Your task to perform on an android device: add a contact Image 0: 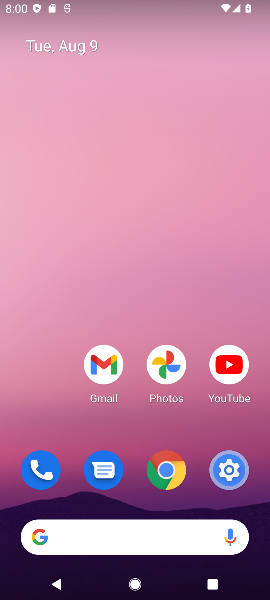
Step 0: drag from (100, 539) to (156, 144)
Your task to perform on an android device: add a contact Image 1: 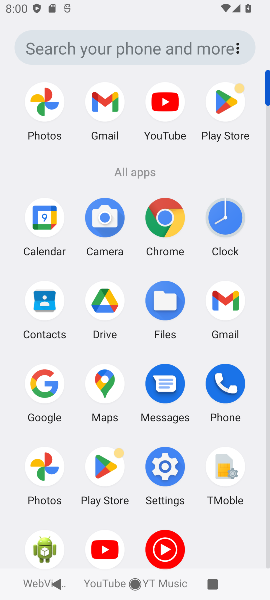
Step 1: click (46, 300)
Your task to perform on an android device: add a contact Image 2: 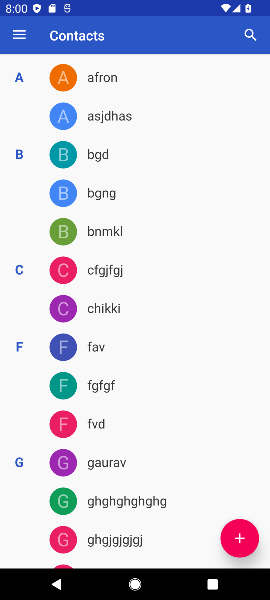
Step 2: click (242, 541)
Your task to perform on an android device: add a contact Image 3: 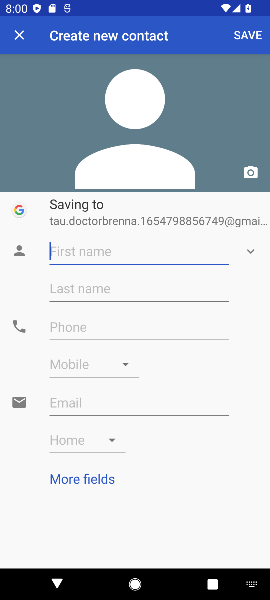
Step 3: type "Devendra"
Your task to perform on an android device: add a contact Image 4: 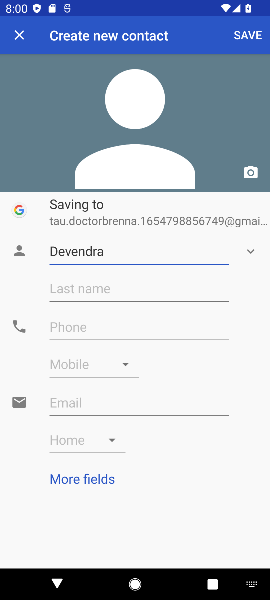
Step 4: click (113, 290)
Your task to perform on an android device: add a contact Image 5: 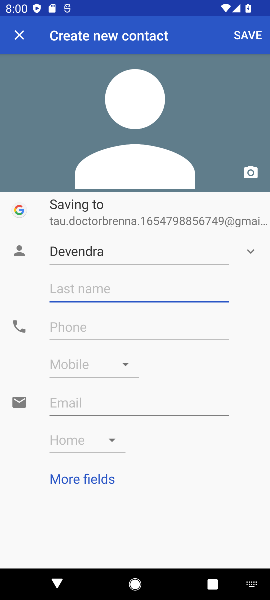
Step 5: type "Bhanopia"
Your task to perform on an android device: add a contact Image 6: 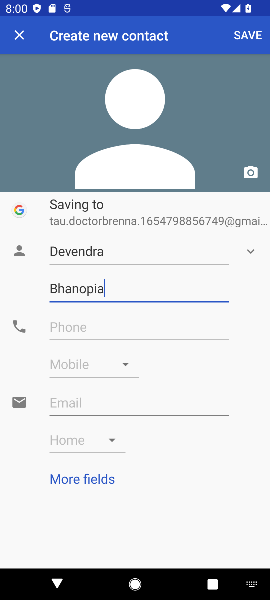
Step 6: click (122, 326)
Your task to perform on an android device: add a contact Image 7: 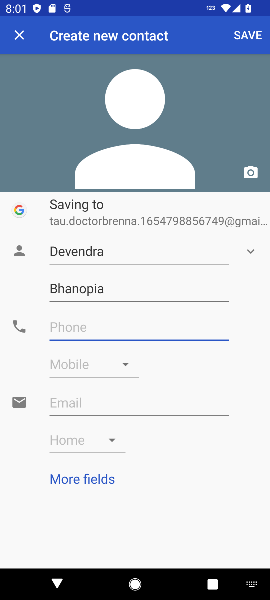
Step 7: type "0987654321"
Your task to perform on an android device: add a contact Image 8: 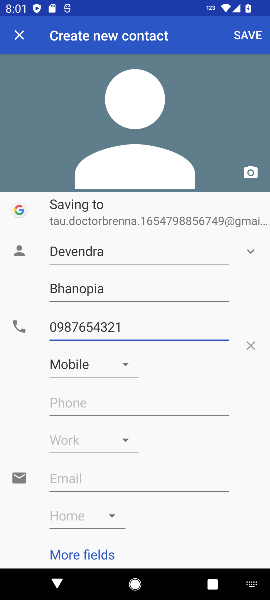
Step 8: click (250, 34)
Your task to perform on an android device: add a contact Image 9: 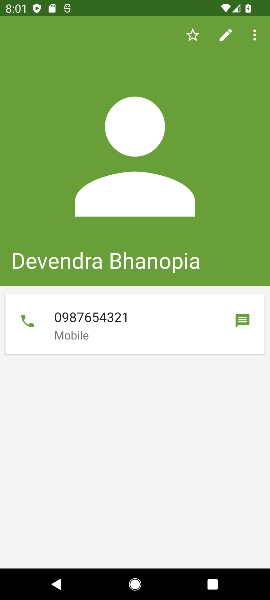
Step 9: task complete